Your task to perform on an android device: delete the emails in spam in the gmail app Image 0: 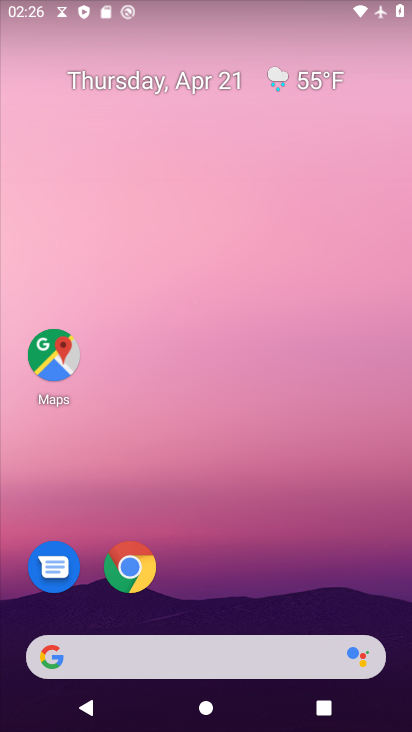
Step 0: drag from (173, 649) to (340, 153)
Your task to perform on an android device: delete the emails in spam in the gmail app Image 1: 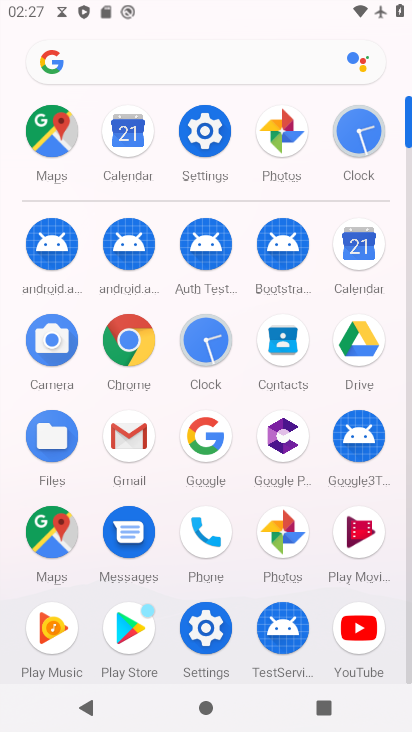
Step 1: click (124, 440)
Your task to perform on an android device: delete the emails in spam in the gmail app Image 2: 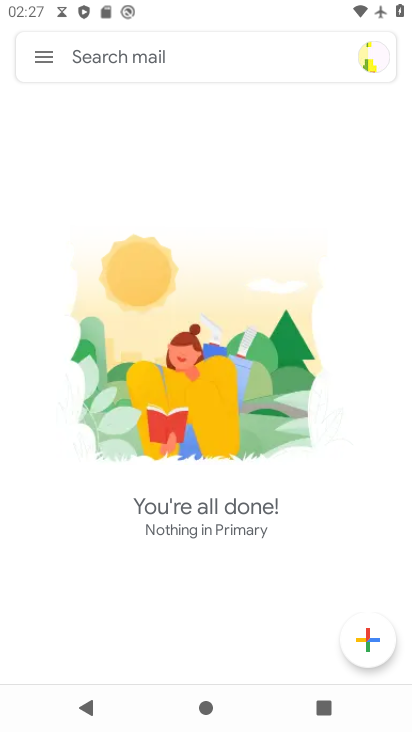
Step 2: click (41, 57)
Your task to perform on an android device: delete the emails in spam in the gmail app Image 3: 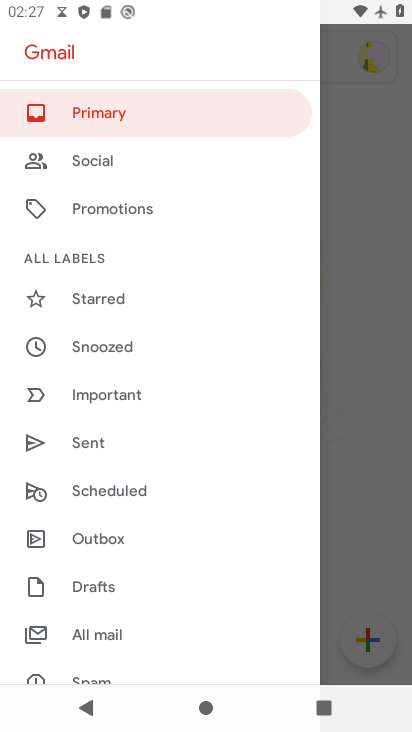
Step 3: drag from (139, 637) to (229, 206)
Your task to perform on an android device: delete the emails in spam in the gmail app Image 4: 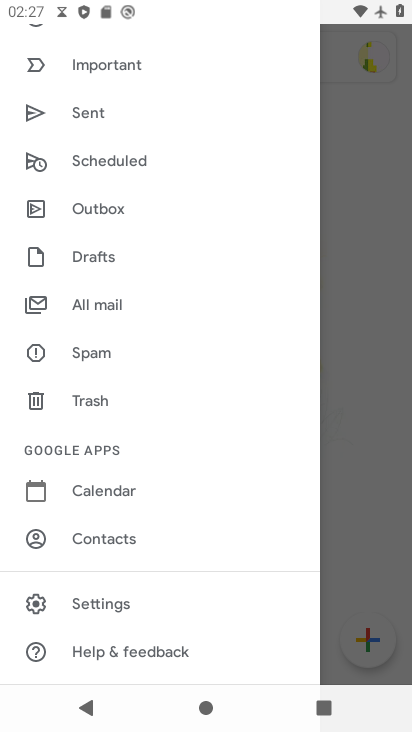
Step 4: click (93, 348)
Your task to perform on an android device: delete the emails in spam in the gmail app Image 5: 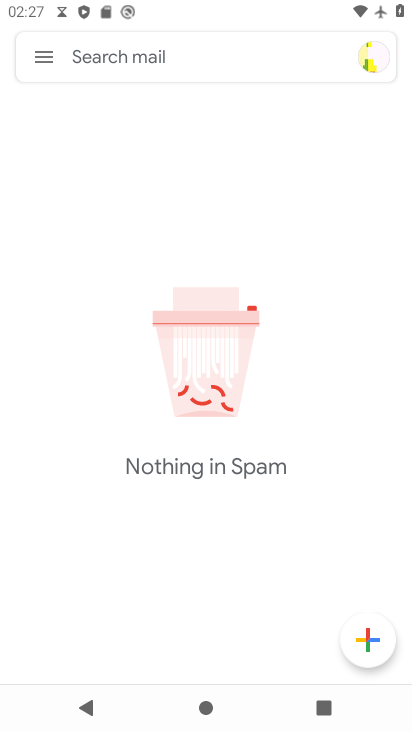
Step 5: task complete